Your task to perform on an android device: Open battery settings Image 0: 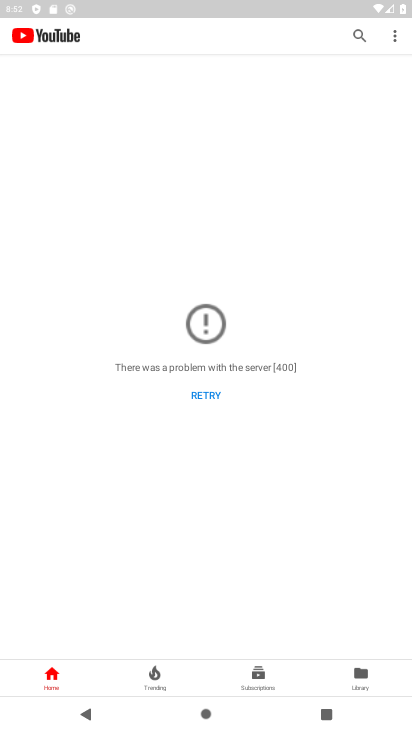
Step 0: press home button
Your task to perform on an android device: Open battery settings Image 1: 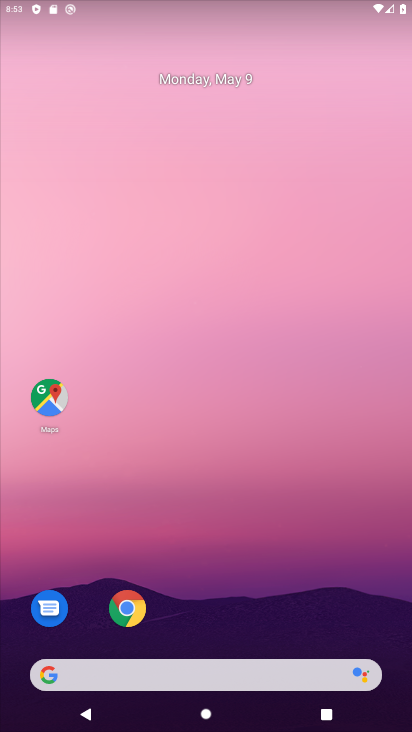
Step 1: drag from (337, 569) to (295, 74)
Your task to perform on an android device: Open battery settings Image 2: 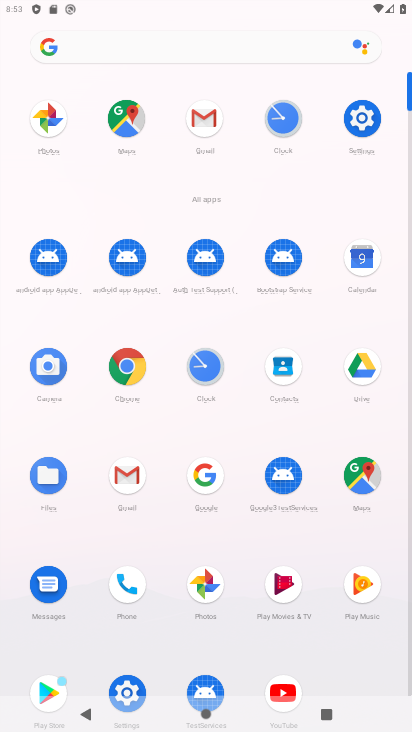
Step 2: click (361, 125)
Your task to perform on an android device: Open battery settings Image 3: 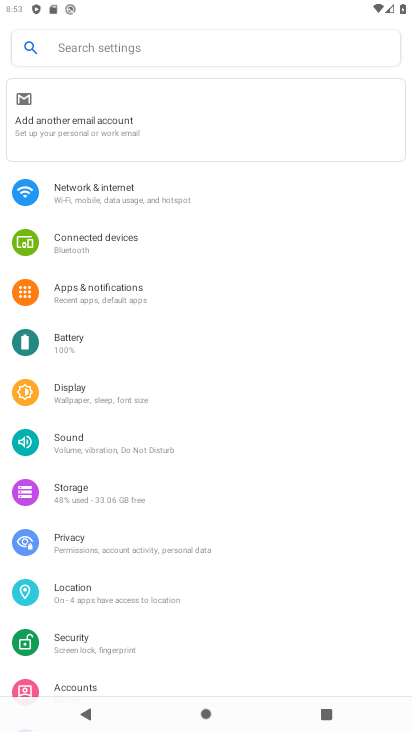
Step 3: click (82, 346)
Your task to perform on an android device: Open battery settings Image 4: 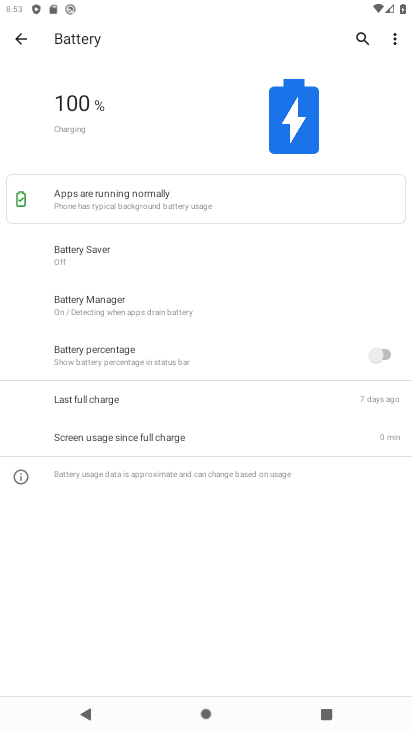
Step 4: task complete